Your task to perform on an android device: empty trash in google photos Image 0: 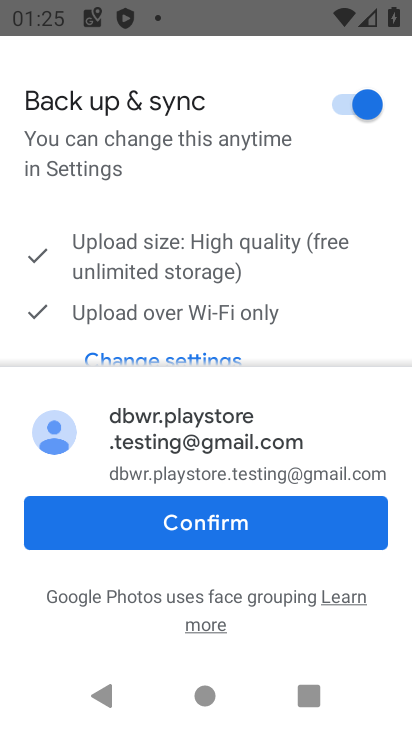
Step 0: press home button
Your task to perform on an android device: empty trash in google photos Image 1: 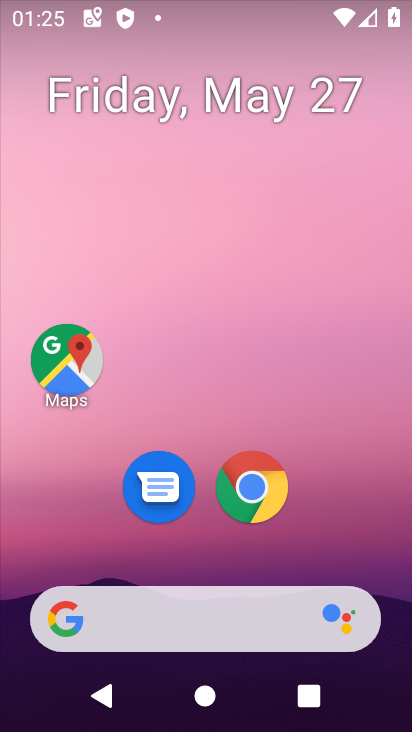
Step 1: drag from (152, 727) to (89, 99)
Your task to perform on an android device: empty trash in google photos Image 2: 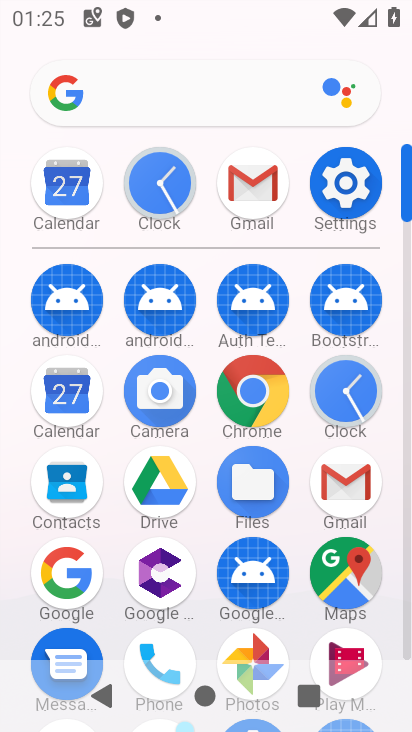
Step 2: click (248, 644)
Your task to perform on an android device: empty trash in google photos Image 3: 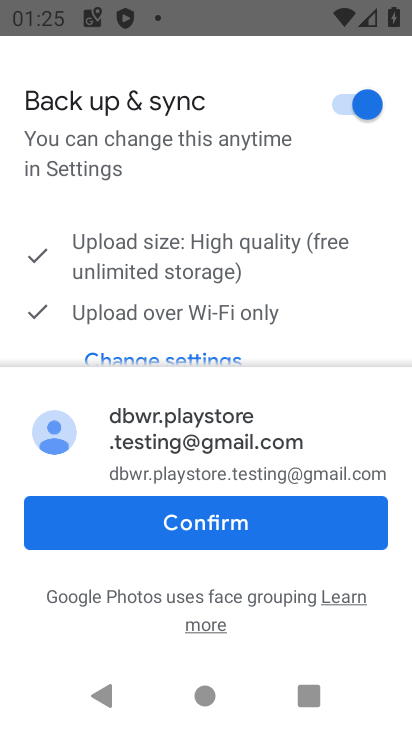
Step 3: click (239, 527)
Your task to perform on an android device: empty trash in google photos Image 4: 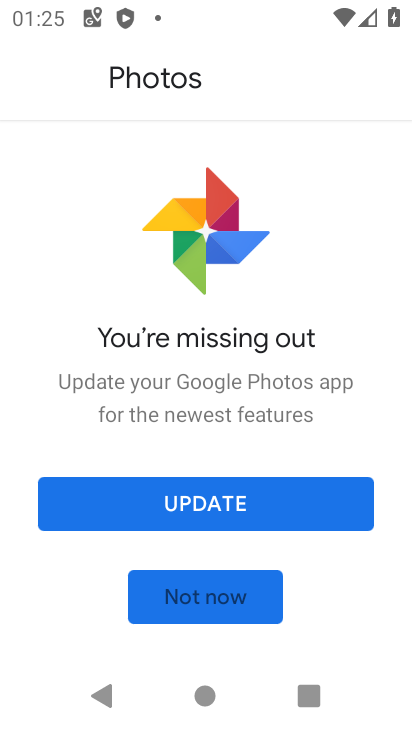
Step 4: click (173, 599)
Your task to perform on an android device: empty trash in google photos Image 5: 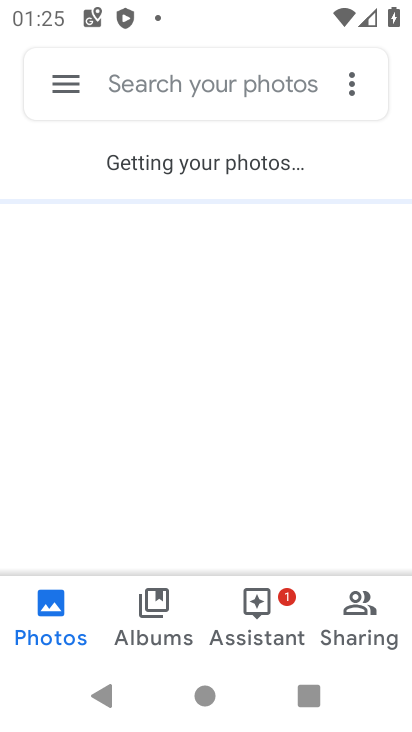
Step 5: click (65, 83)
Your task to perform on an android device: empty trash in google photos Image 6: 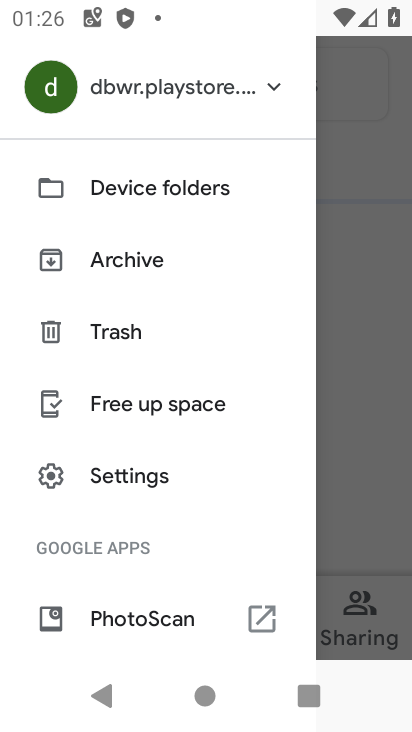
Step 6: click (108, 335)
Your task to perform on an android device: empty trash in google photos Image 7: 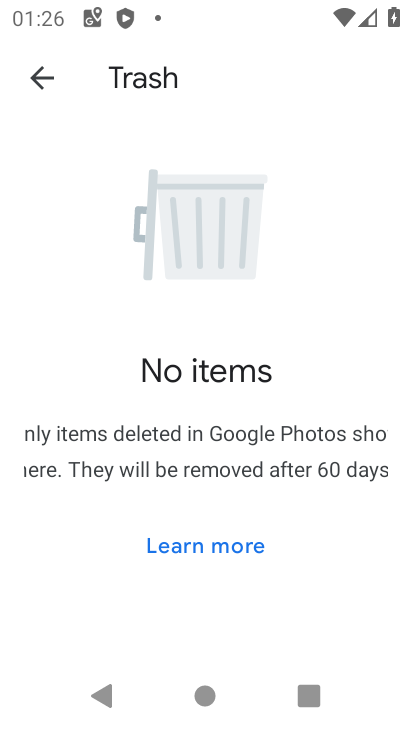
Step 7: task complete